Your task to perform on an android device: make emails show in primary in the gmail app Image 0: 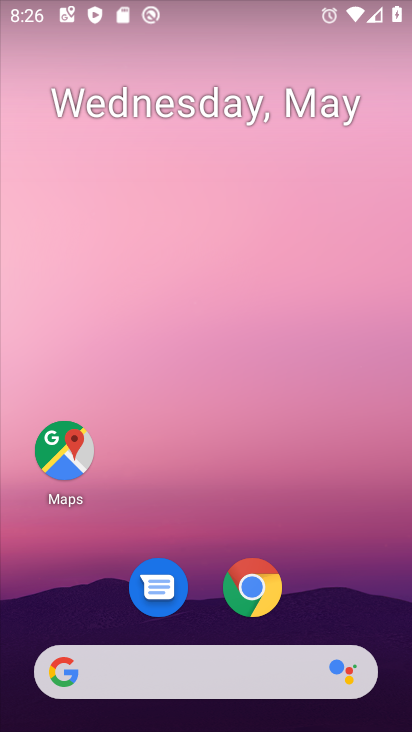
Step 0: drag from (210, 558) to (282, 214)
Your task to perform on an android device: make emails show in primary in the gmail app Image 1: 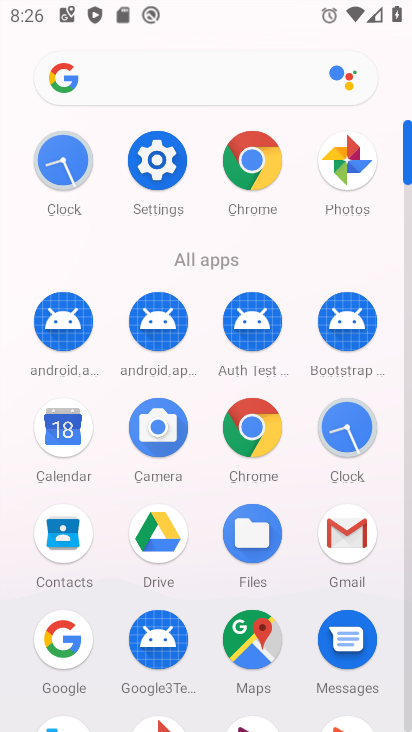
Step 1: click (337, 551)
Your task to perform on an android device: make emails show in primary in the gmail app Image 2: 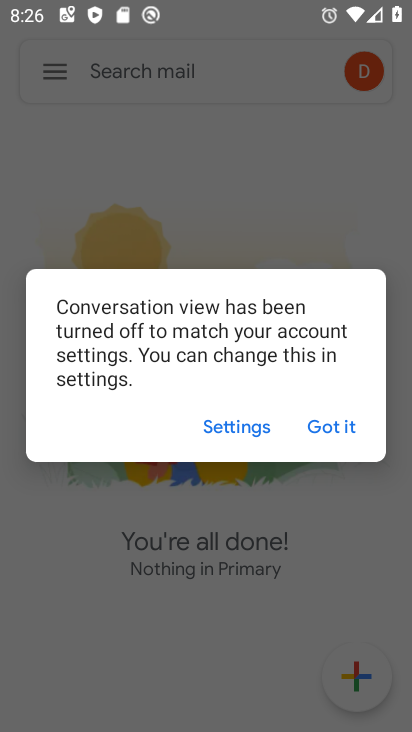
Step 2: click (338, 423)
Your task to perform on an android device: make emails show in primary in the gmail app Image 3: 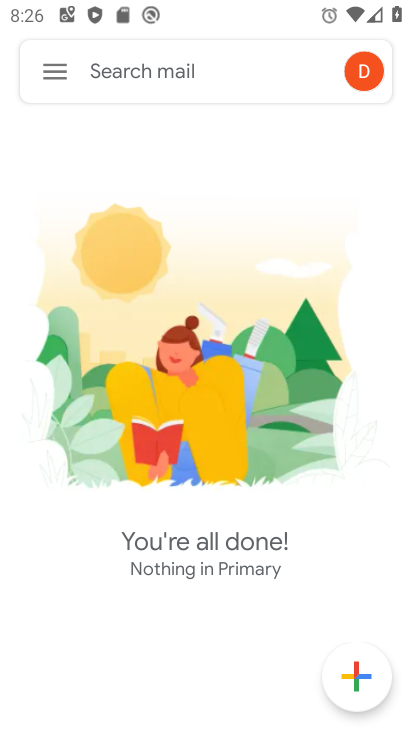
Step 3: click (55, 69)
Your task to perform on an android device: make emails show in primary in the gmail app Image 4: 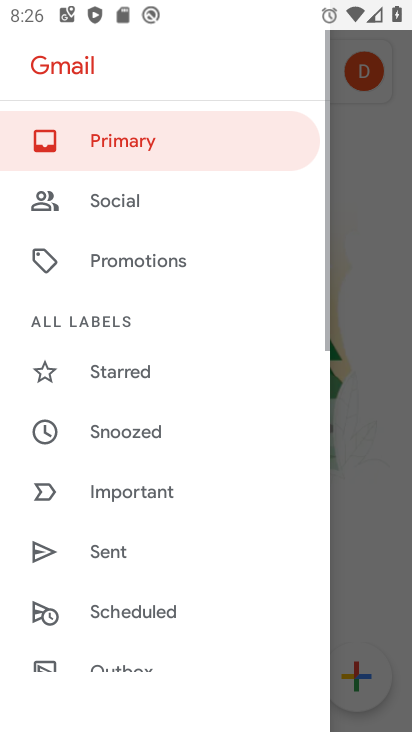
Step 4: drag from (124, 567) to (200, 184)
Your task to perform on an android device: make emails show in primary in the gmail app Image 5: 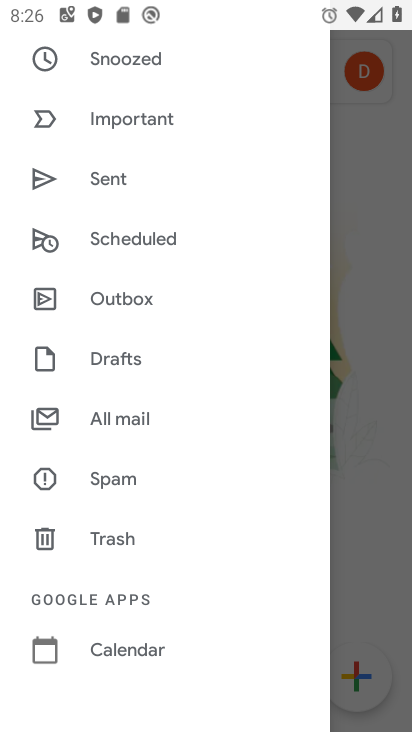
Step 5: drag from (128, 595) to (179, 260)
Your task to perform on an android device: make emails show in primary in the gmail app Image 6: 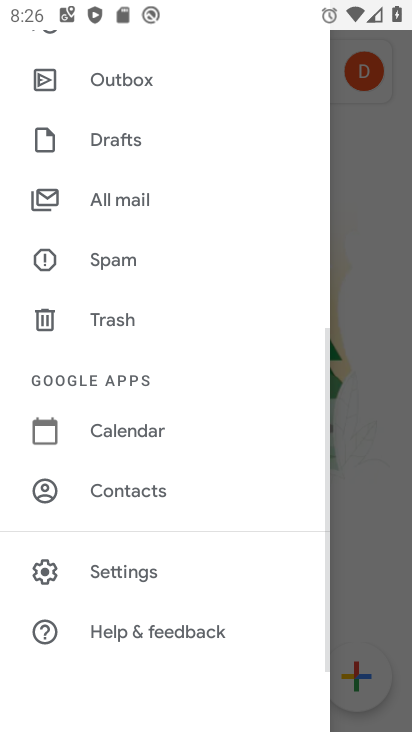
Step 6: click (128, 582)
Your task to perform on an android device: make emails show in primary in the gmail app Image 7: 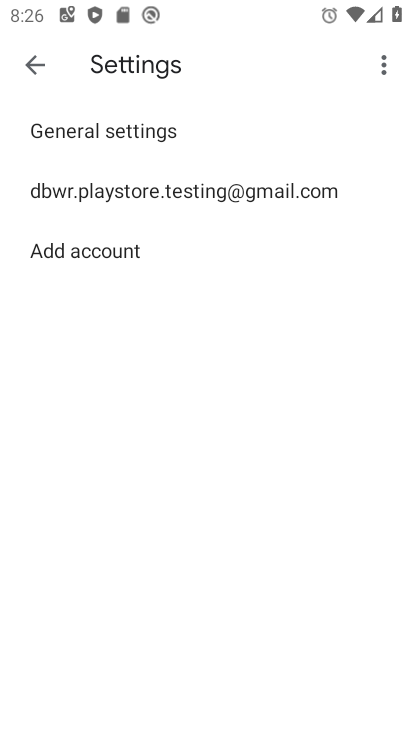
Step 7: click (276, 197)
Your task to perform on an android device: make emails show in primary in the gmail app Image 8: 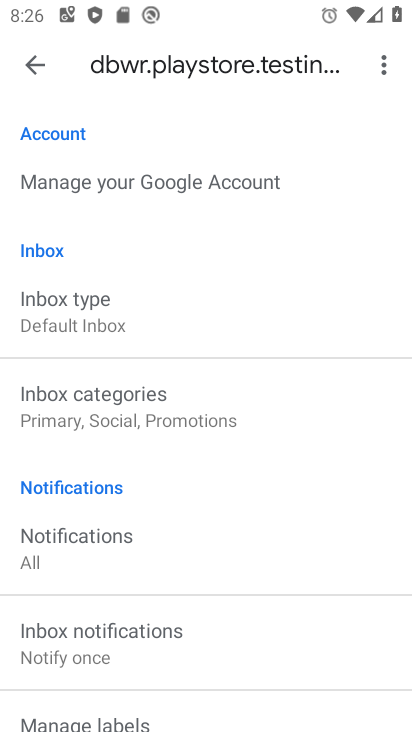
Step 8: click (126, 404)
Your task to perform on an android device: make emails show in primary in the gmail app Image 9: 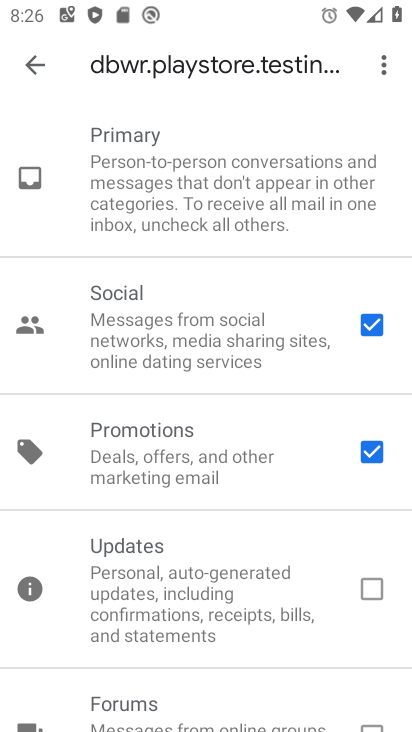
Step 9: click (349, 315)
Your task to perform on an android device: make emails show in primary in the gmail app Image 10: 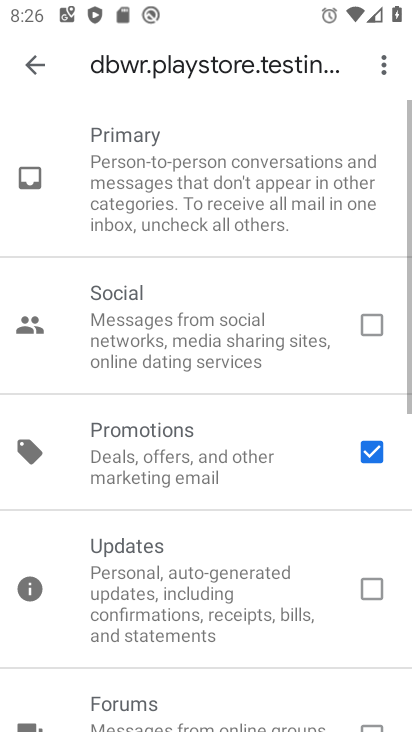
Step 10: click (372, 453)
Your task to perform on an android device: make emails show in primary in the gmail app Image 11: 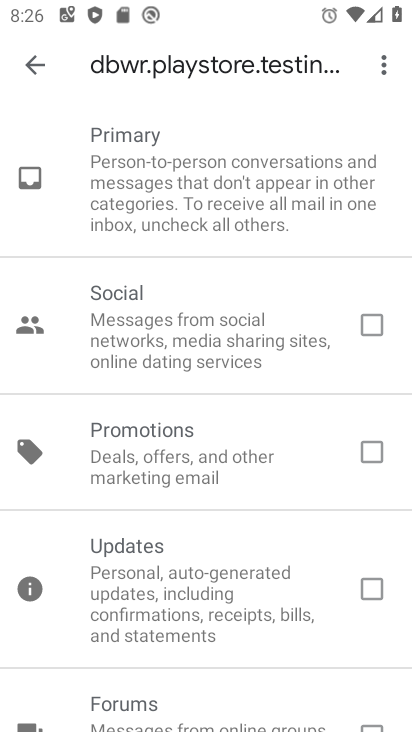
Step 11: task complete